Your task to perform on an android device: Show me popular videos on Youtube Image 0: 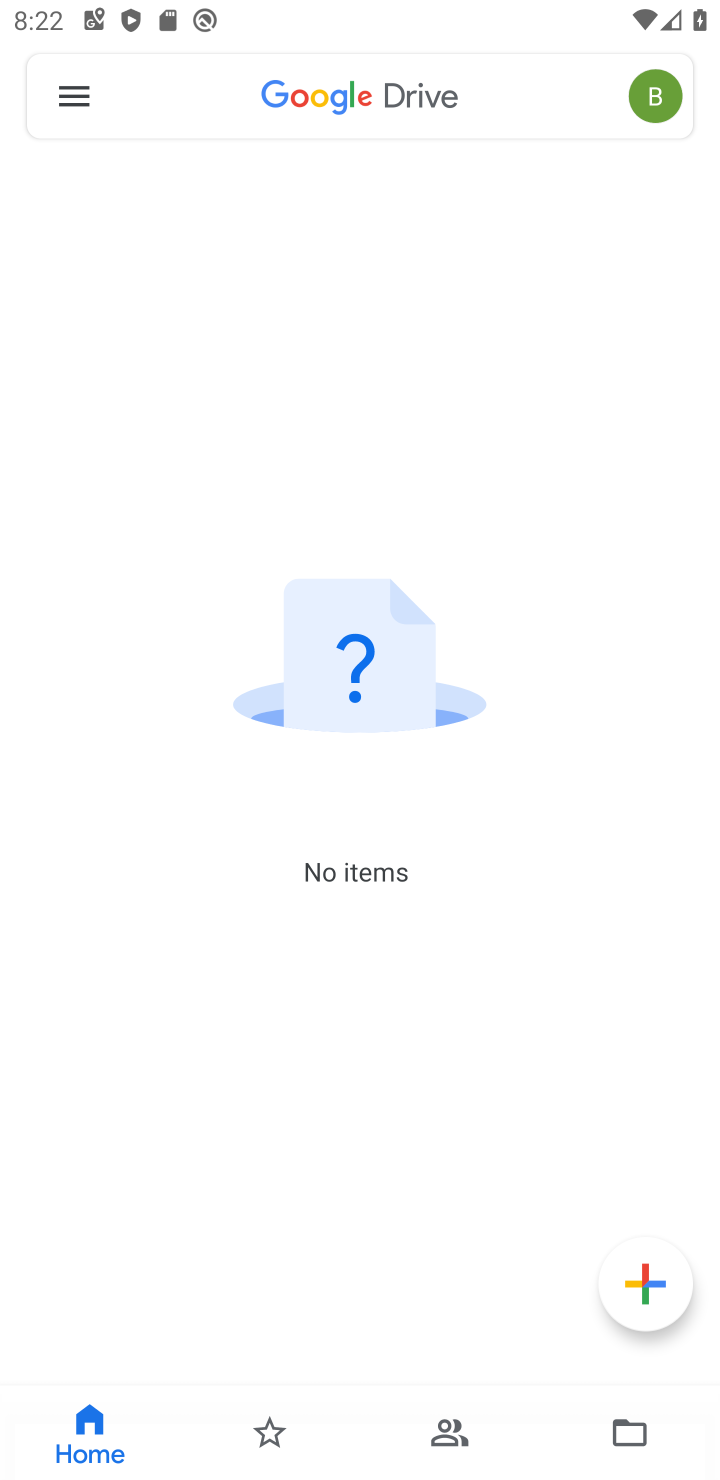
Step 0: press home button
Your task to perform on an android device: Show me popular videos on Youtube Image 1: 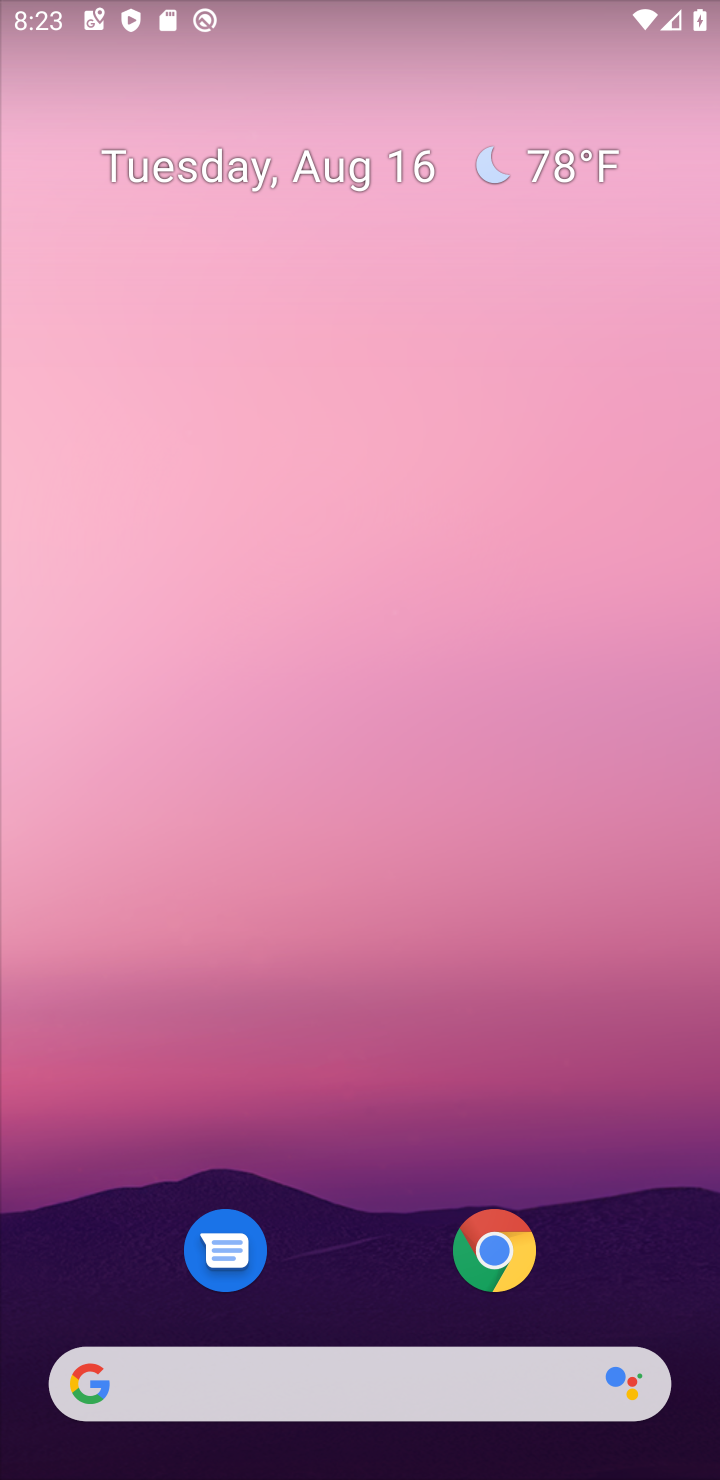
Step 1: drag from (315, 1305) to (523, 128)
Your task to perform on an android device: Show me popular videos on Youtube Image 2: 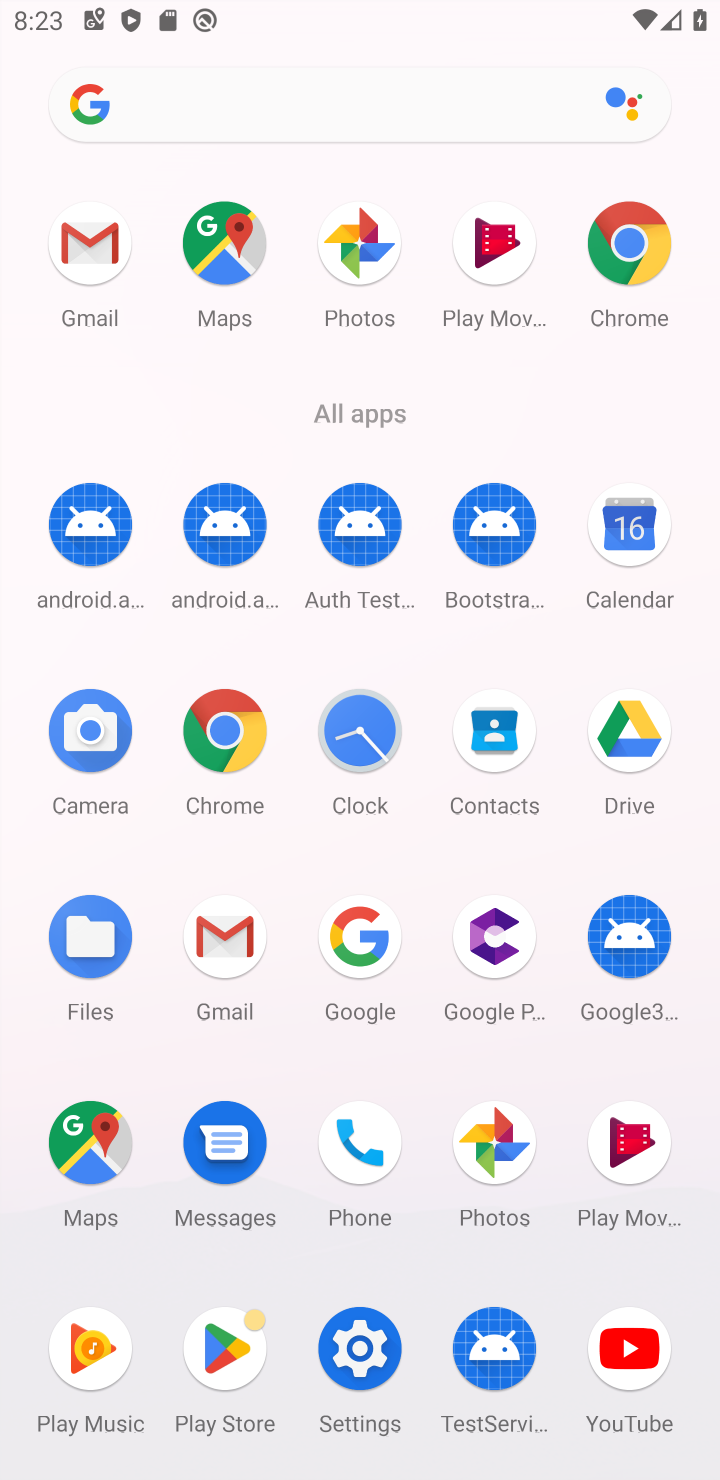
Step 2: click (603, 1361)
Your task to perform on an android device: Show me popular videos on Youtube Image 3: 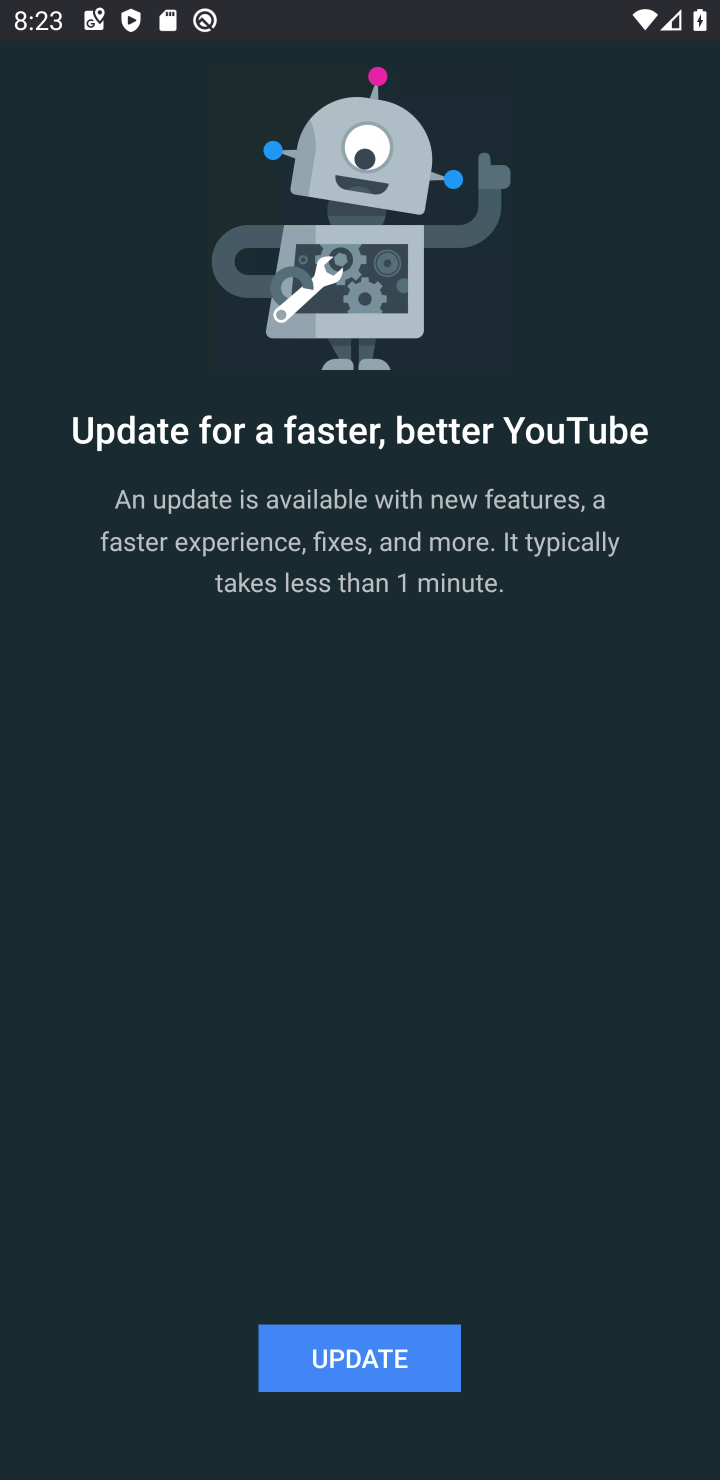
Step 3: click (385, 1370)
Your task to perform on an android device: Show me popular videos on Youtube Image 4: 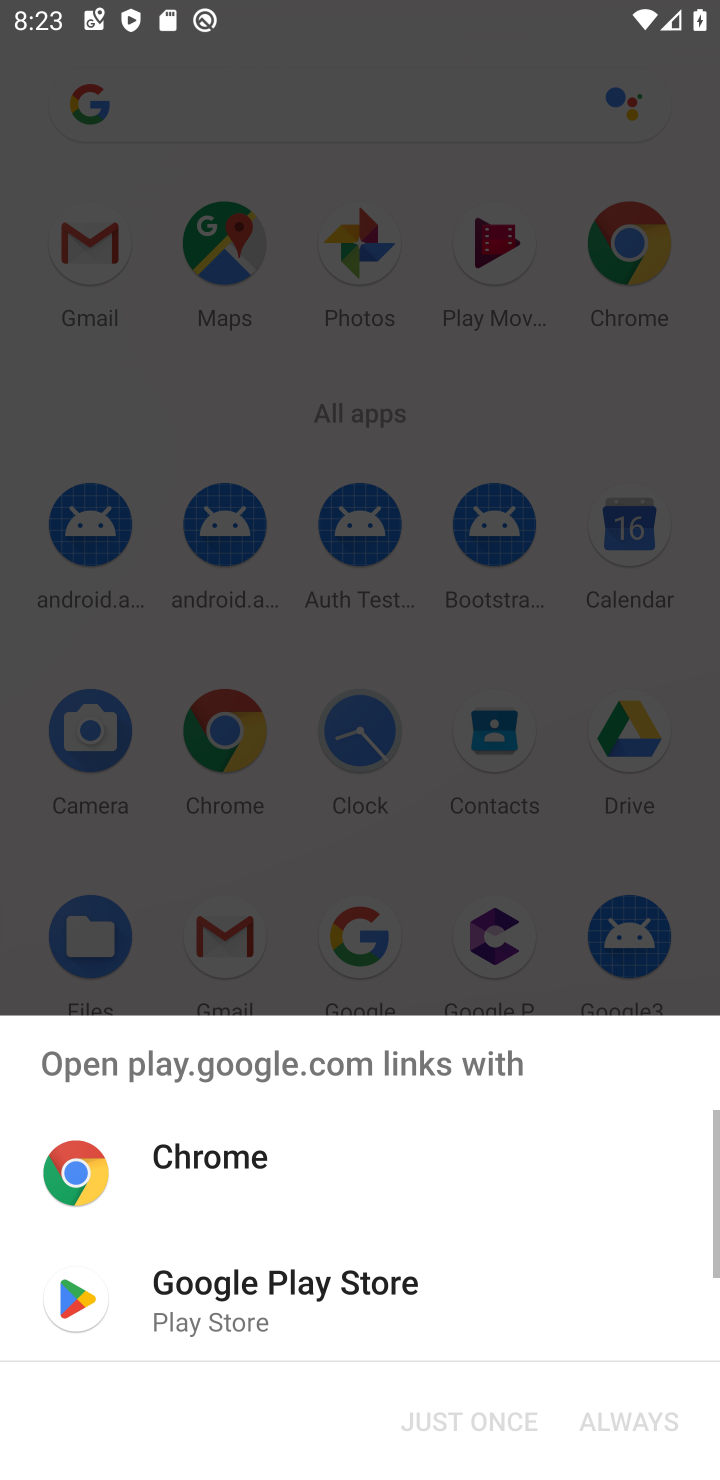
Step 4: click (328, 1314)
Your task to perform on an android device: Show me popular videos on Youtube Image 5: 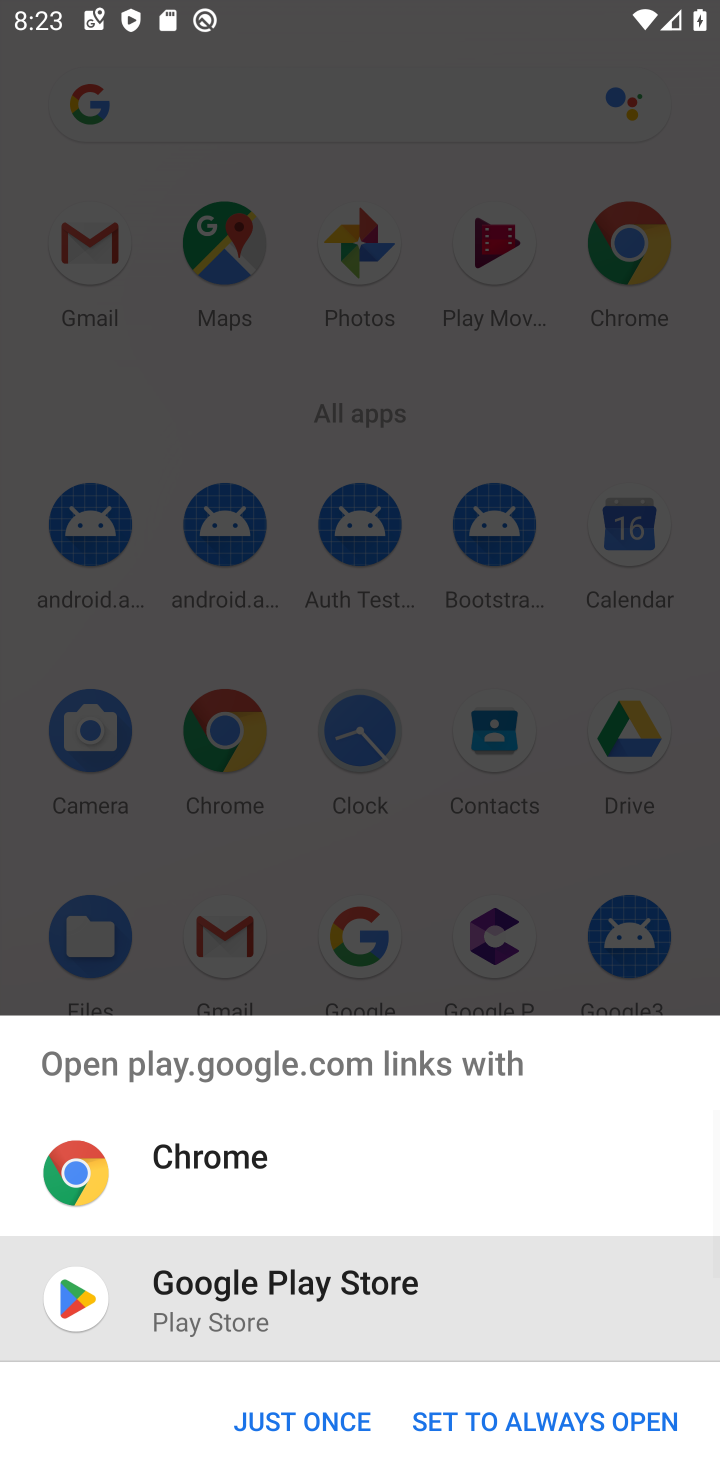
Step 5: click (253, 1419)
Your task to perform on an android device: Show me popular videos on Youtube Image 6: 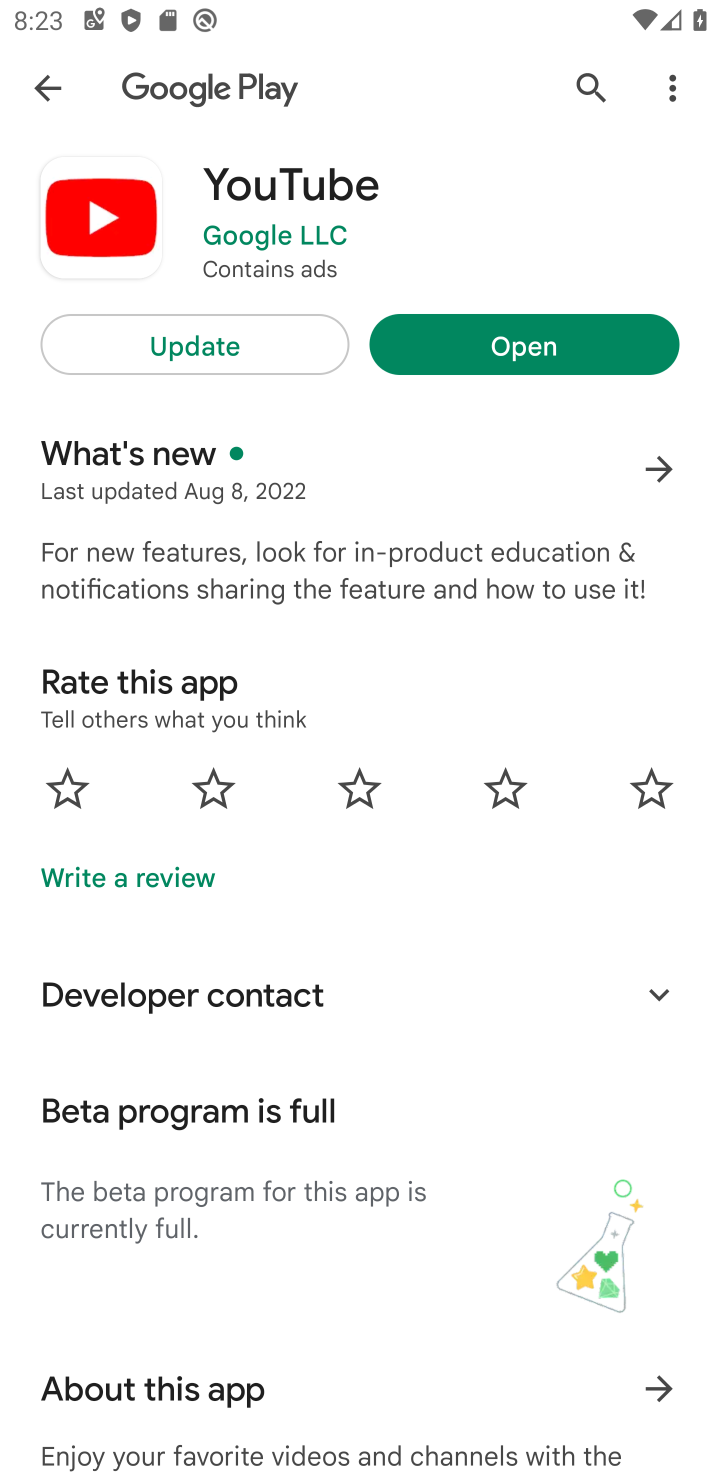
Step 6: click (543, 338)
Your task to perform on an android device: Show me popular videos on Youtube Image 7: 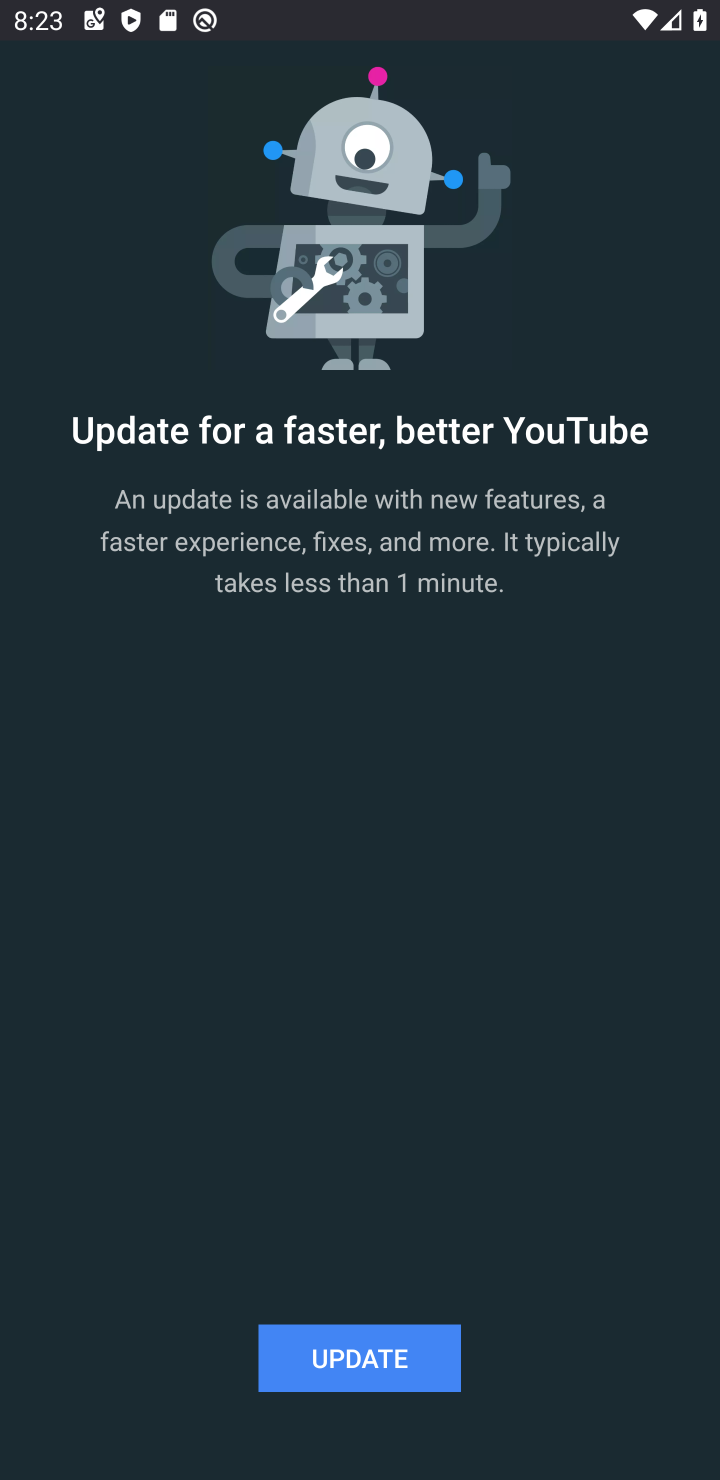
Step 7: click (393, 1362)
Your task to perform on an android device: Show me popular videos on Youtube Image 8: 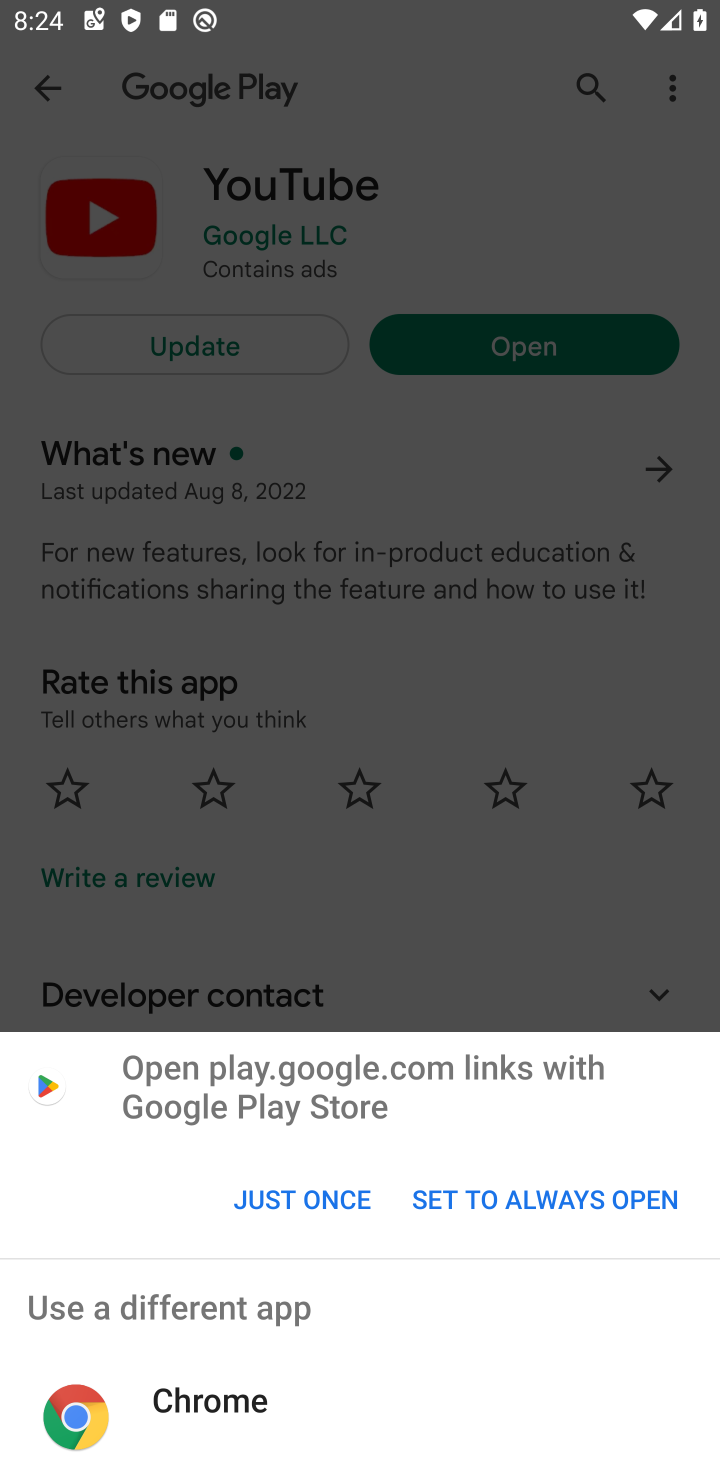
Step 8: click (270, 1203)
Your task to perform on an android device: Show me popular videos on Youtube Image 9: 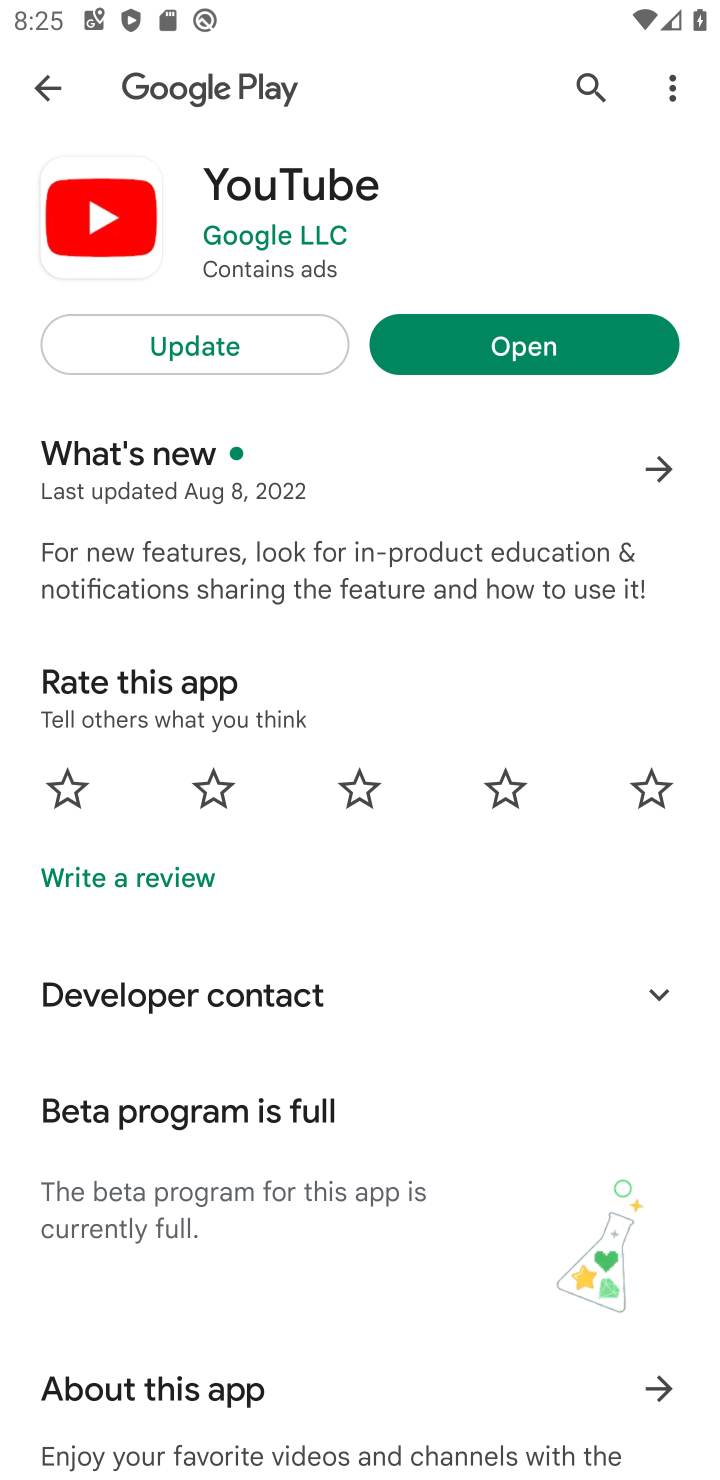
Step 9: click (567, 344)
Your task to perform on an android device: Show me popular videos on Youtube Image 10: 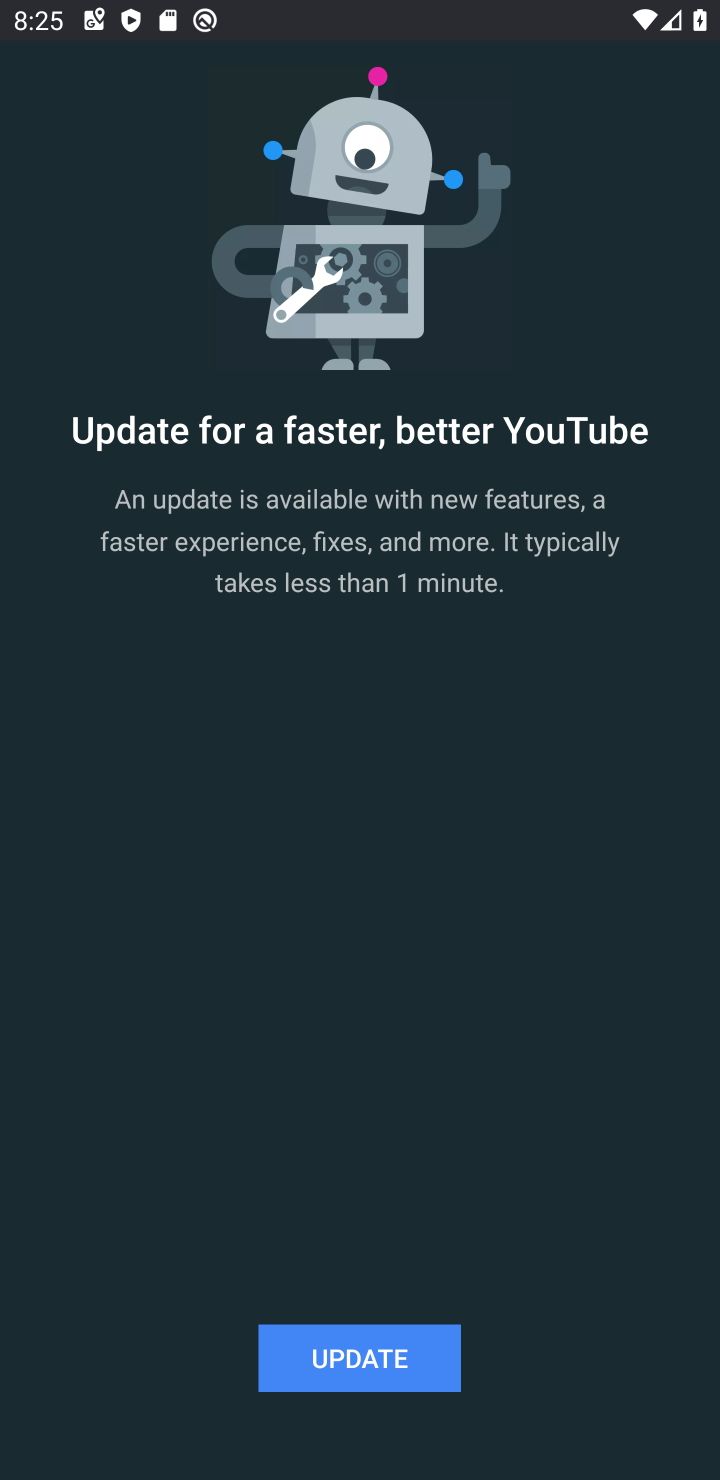
Step 10: click (397, 1340)
Your task to perform on an android device: Show me popular videos on Youtube Image 11: 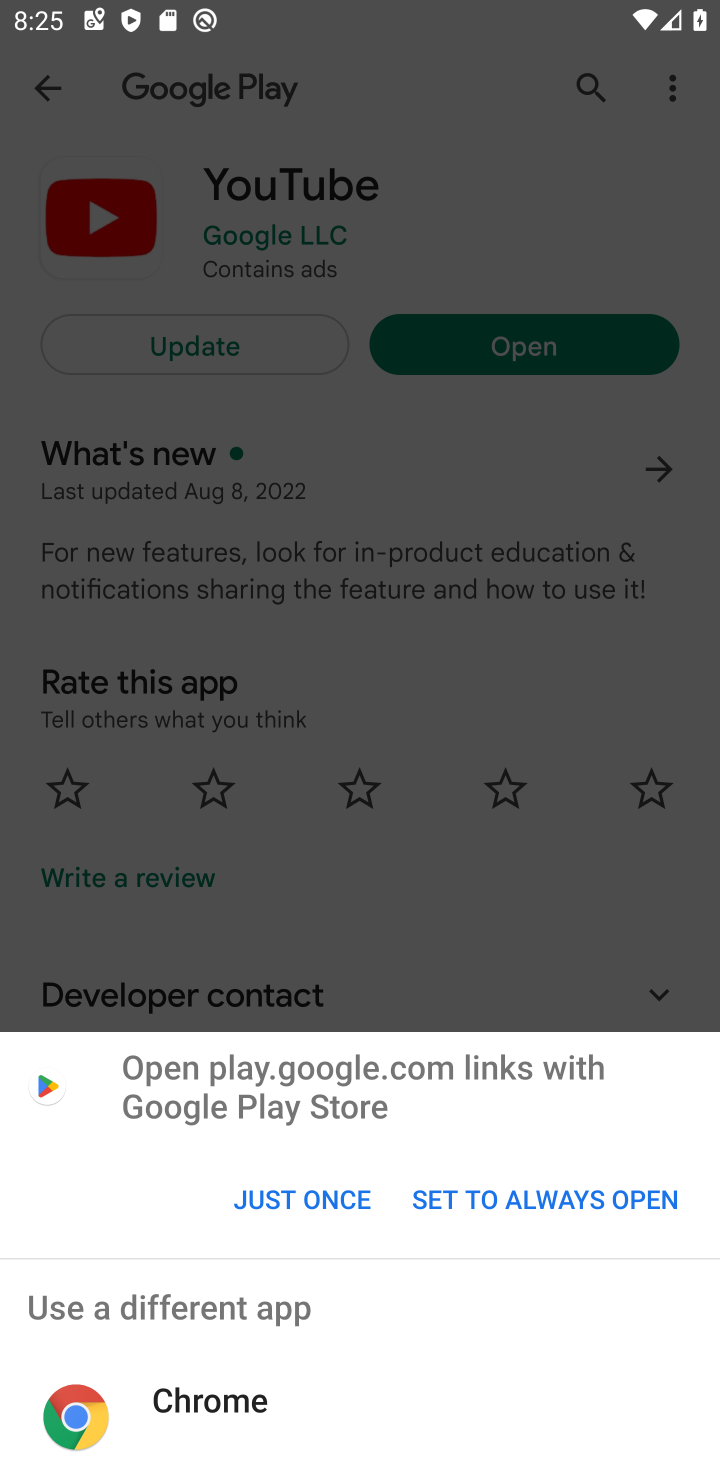
Step 11: click (300, 1212)
Your task to perform on an android device: Show me popular videos on Youtube Image 12: 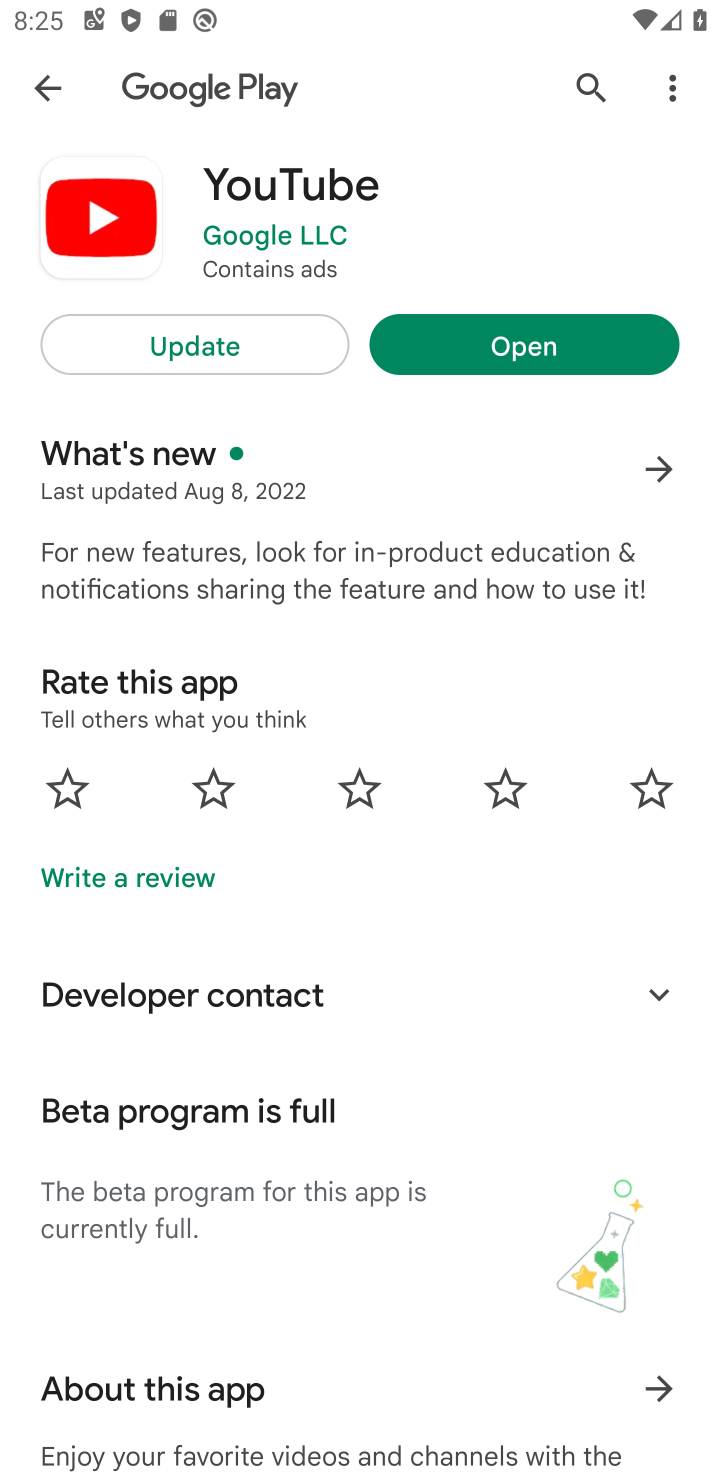
Step 12: click (535, 346)
Your task to perform on an android device: Show me popular videos on Youtube Image 13: 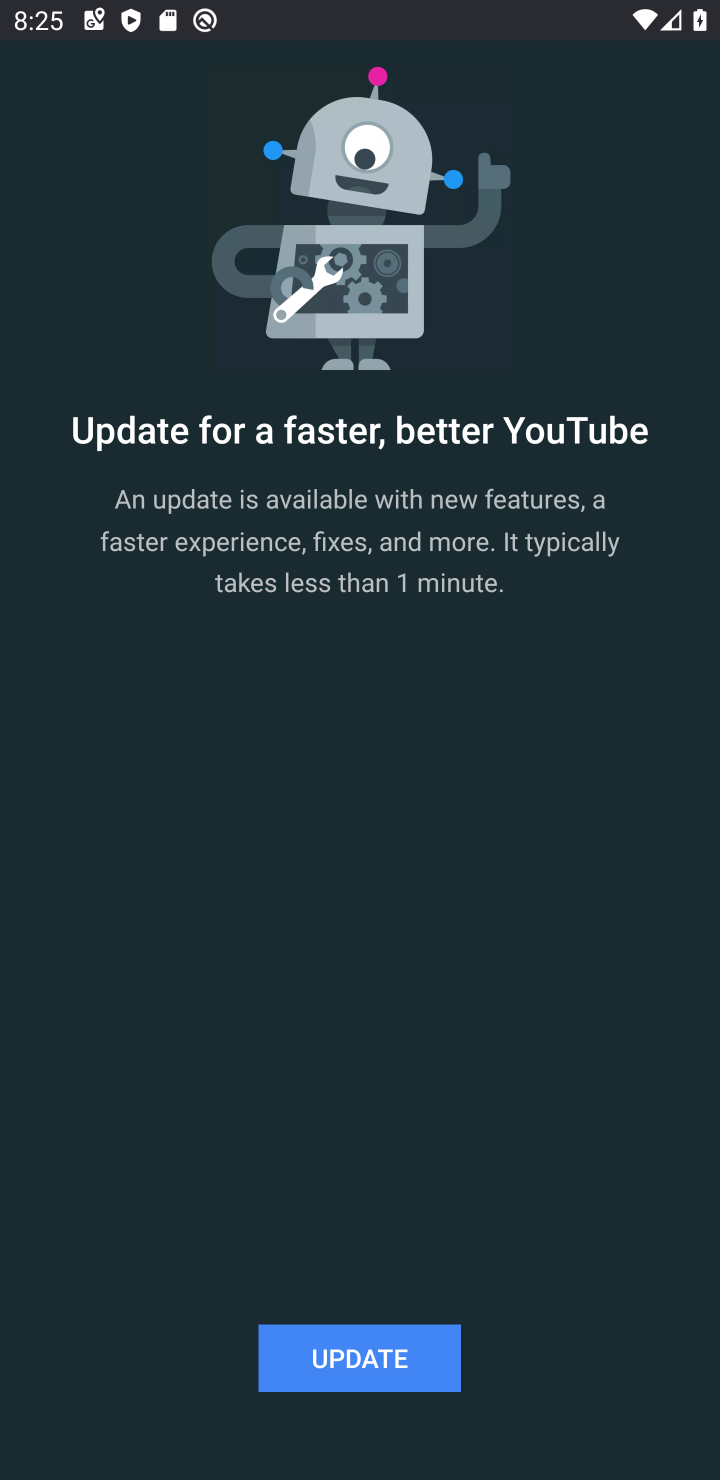
Step 13: click (342, 1365)
Your task to perform on an android device: Show me popular videos on Youtube Image 14: 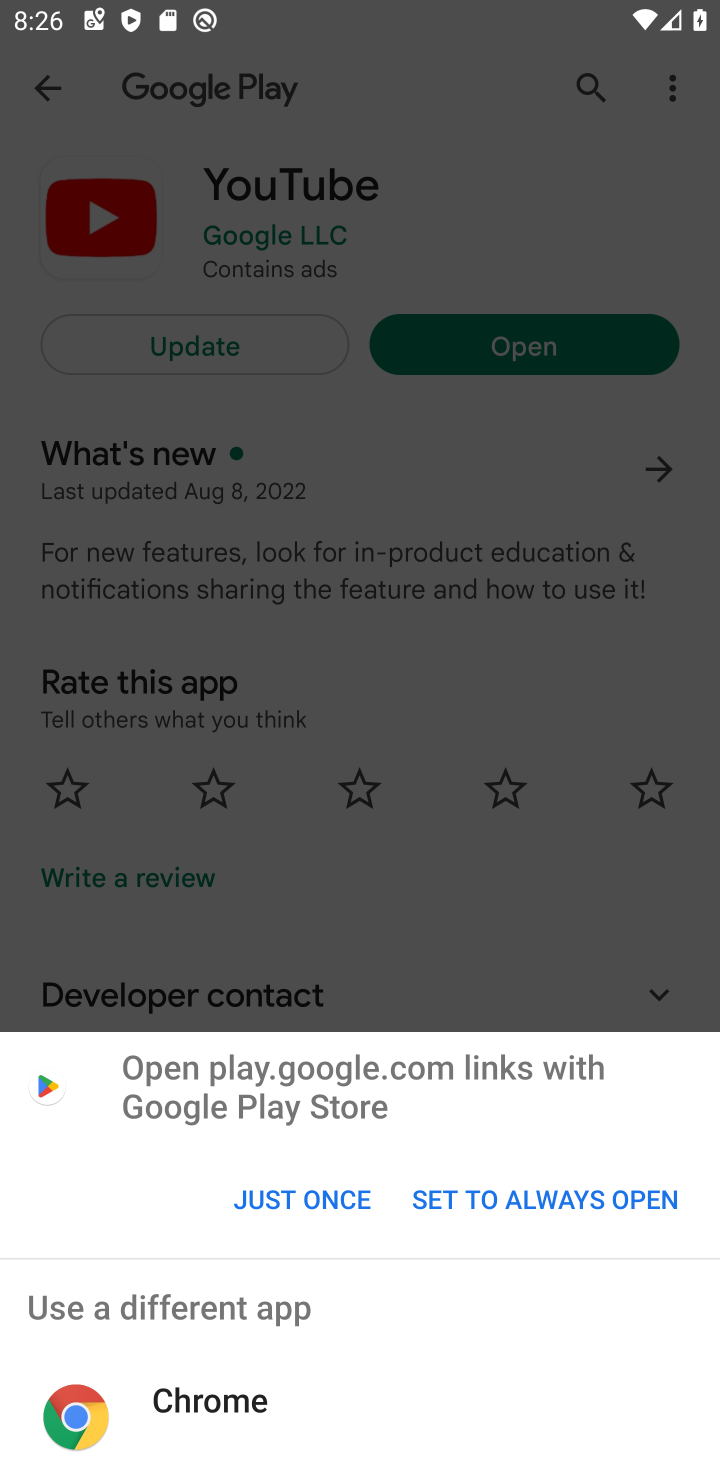
Step 14: click (280, 1191)
Your task to perform on an android device: Show me popular videos on Youtube Image 15: 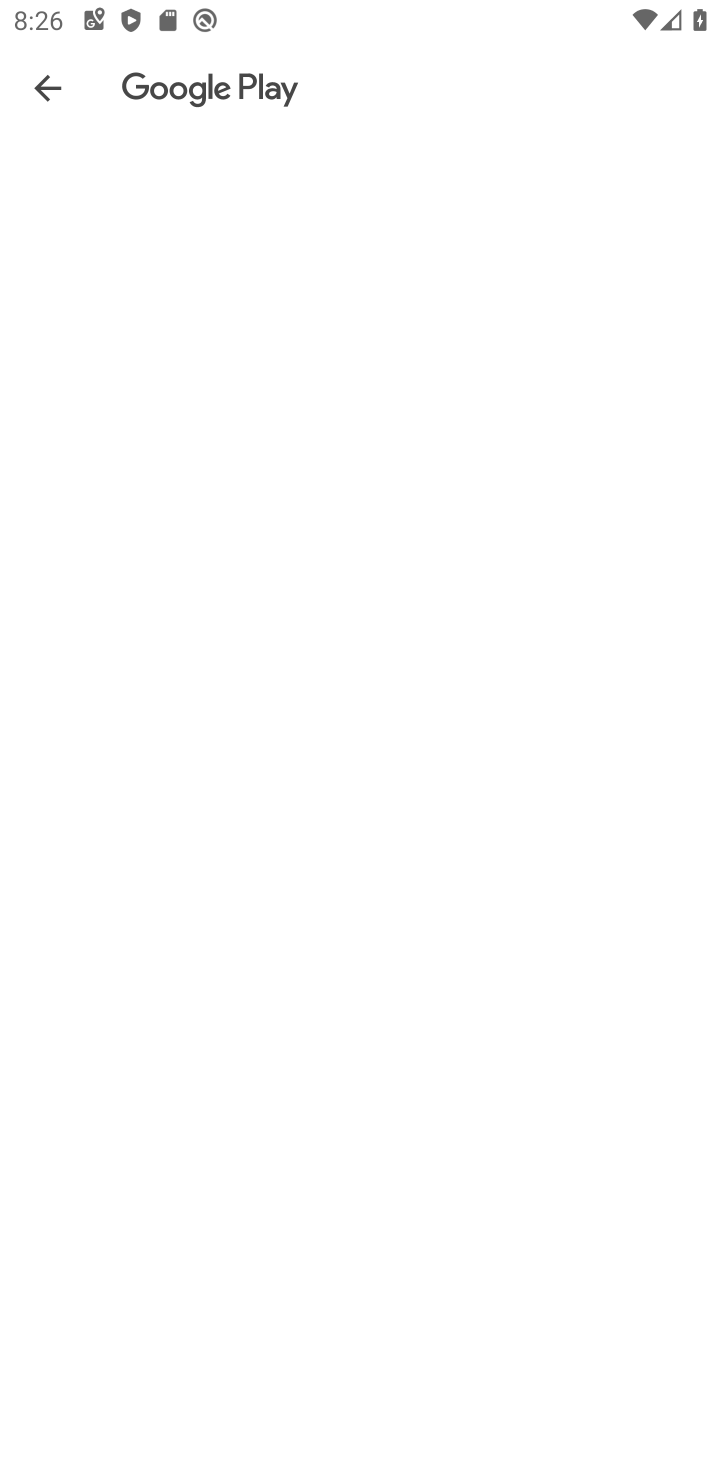
Step 15: click (280, 1191)
Your task to perform on an android device: Show me popular videos on Youtube Image 16: 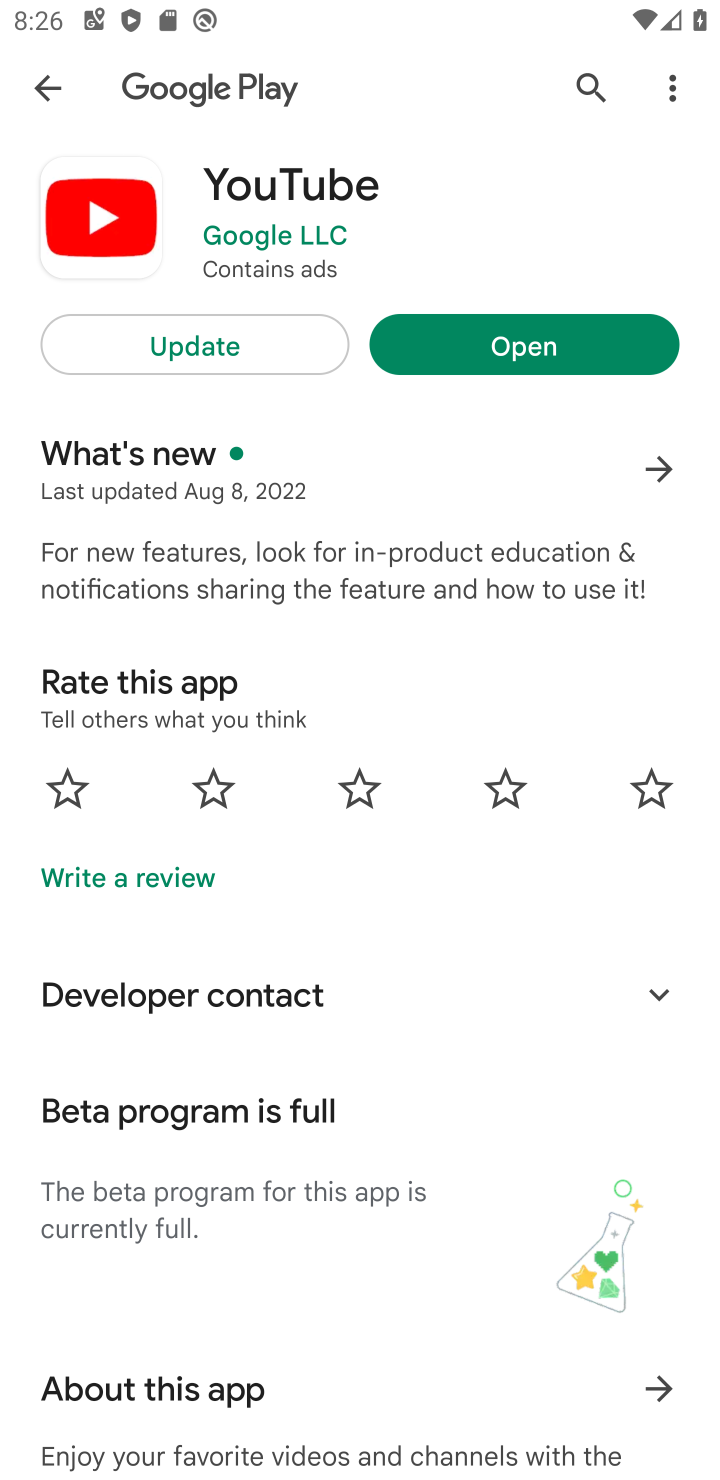
Step 16: click (219, 329)
Your task to perform on an android device: Show me popular videos on Youtube Image 17: 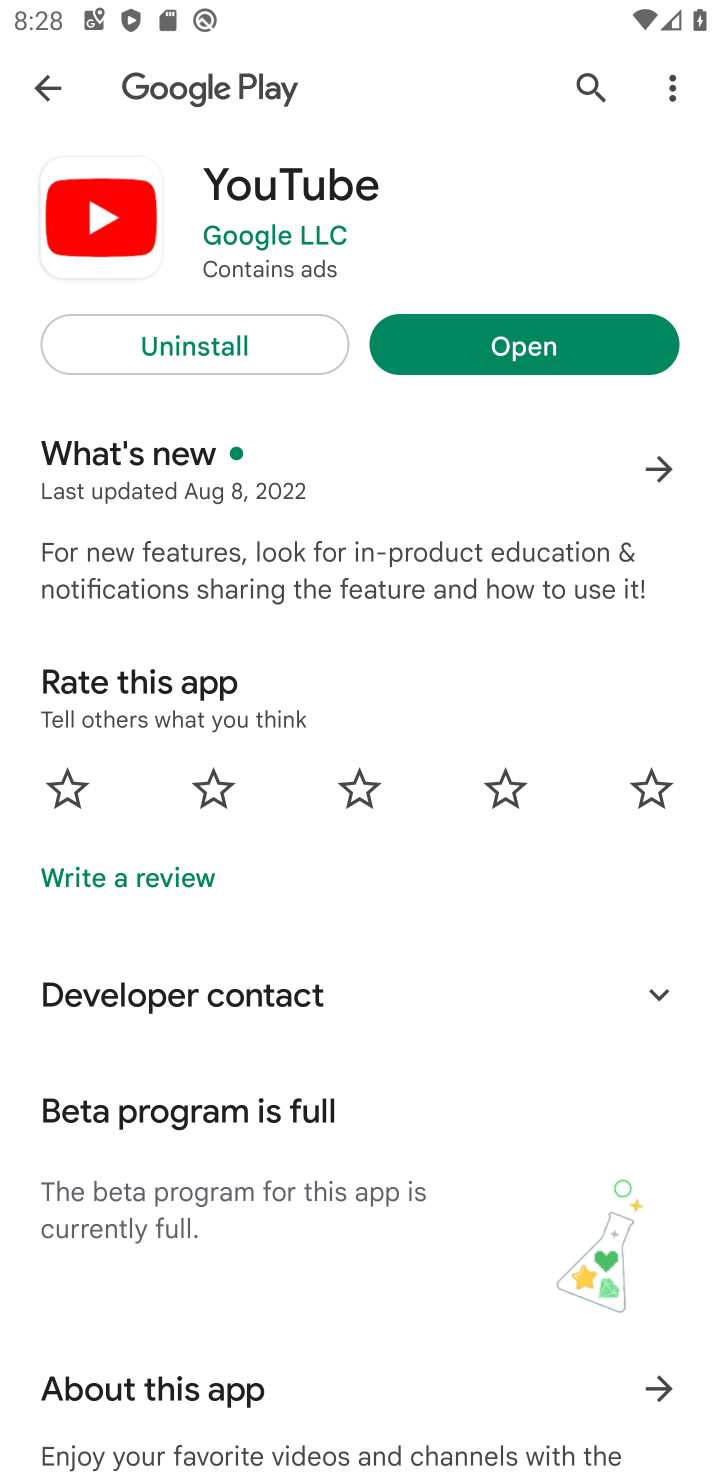
Step 17: click (575, 331)
Your task to perform on an android device: Show me popular videos on Youtube Image 18: 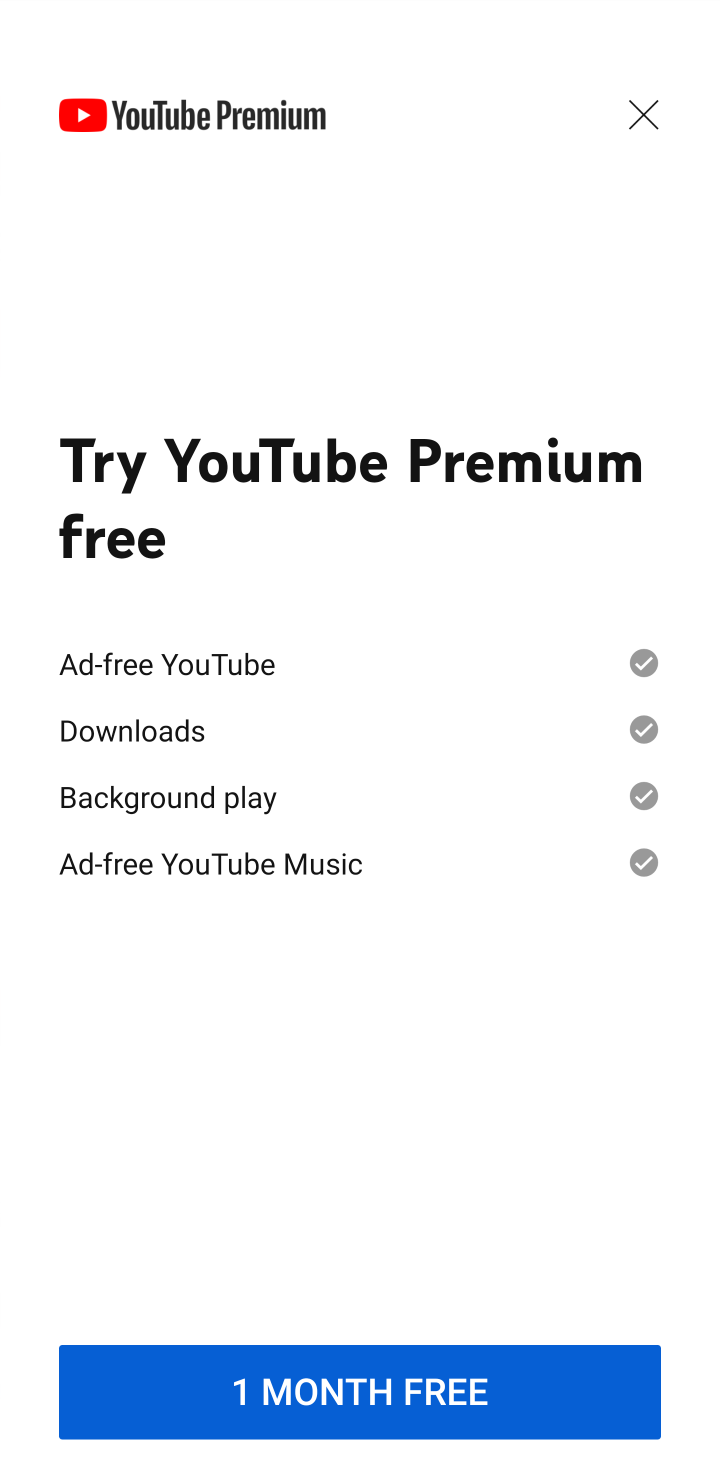
Step 18: click (395, 1424)
Your task to perform on an android device: Show me popular videos on Youtube Image 19: 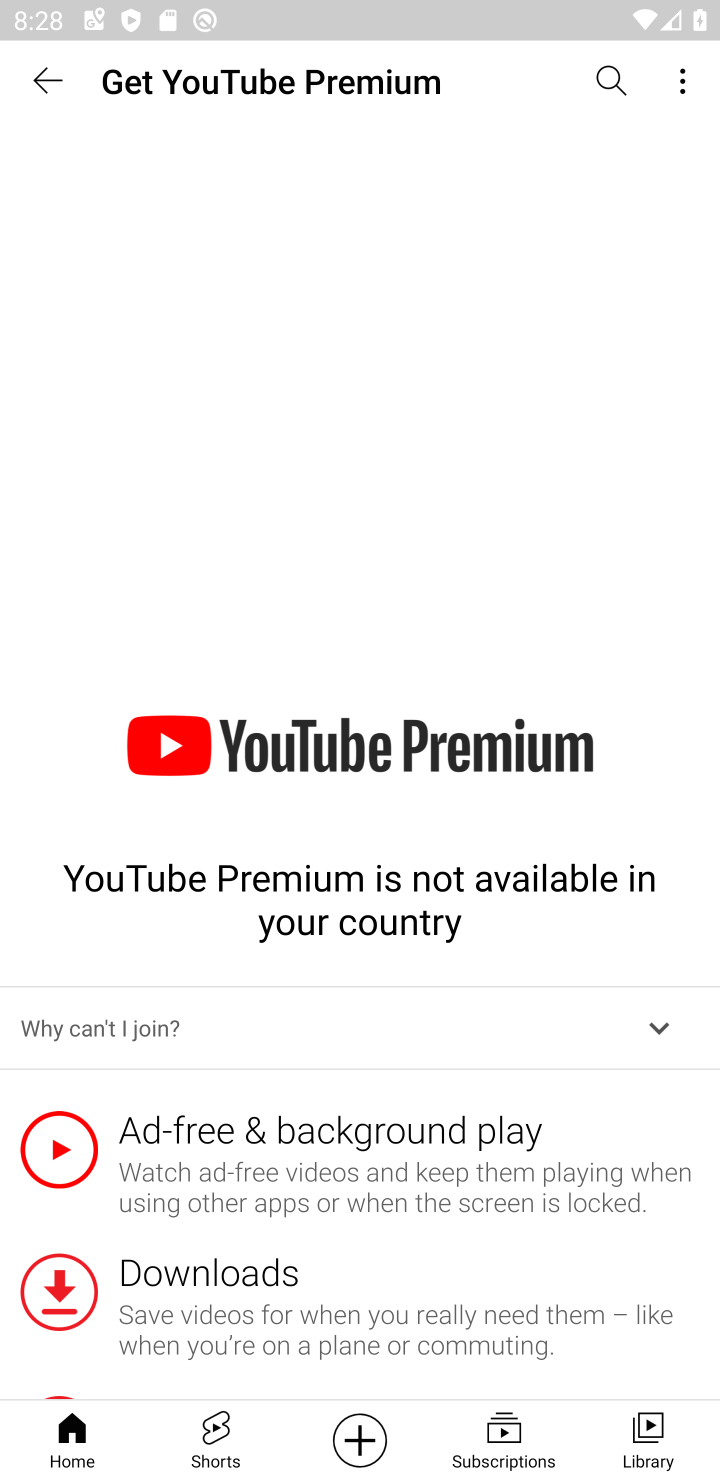
Step 19: click (40, 65)
Your task to perform on an android device: Show me popular videos on Youtube Image 20: 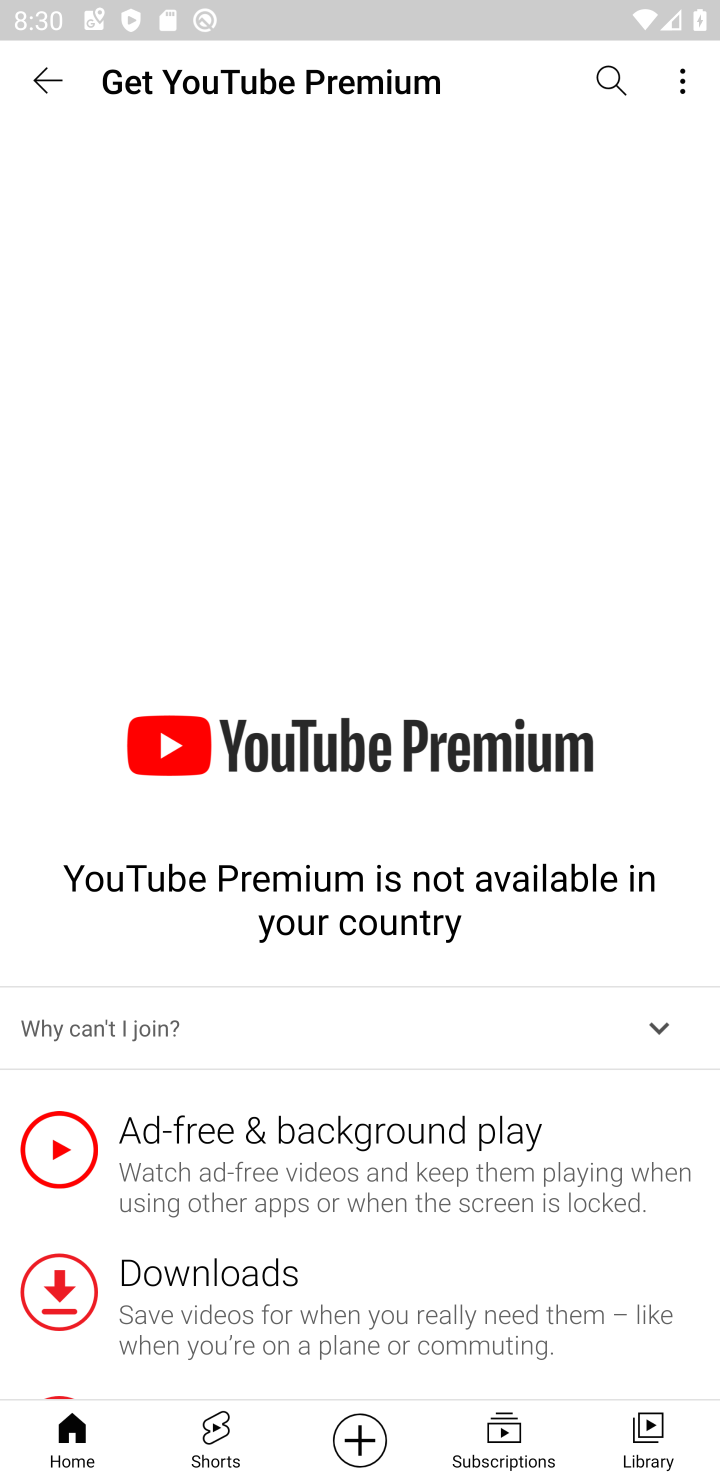
Step 20: click (52, 73)
Your task to perform on an android device: Show me popular videos on Youtube Image 21: 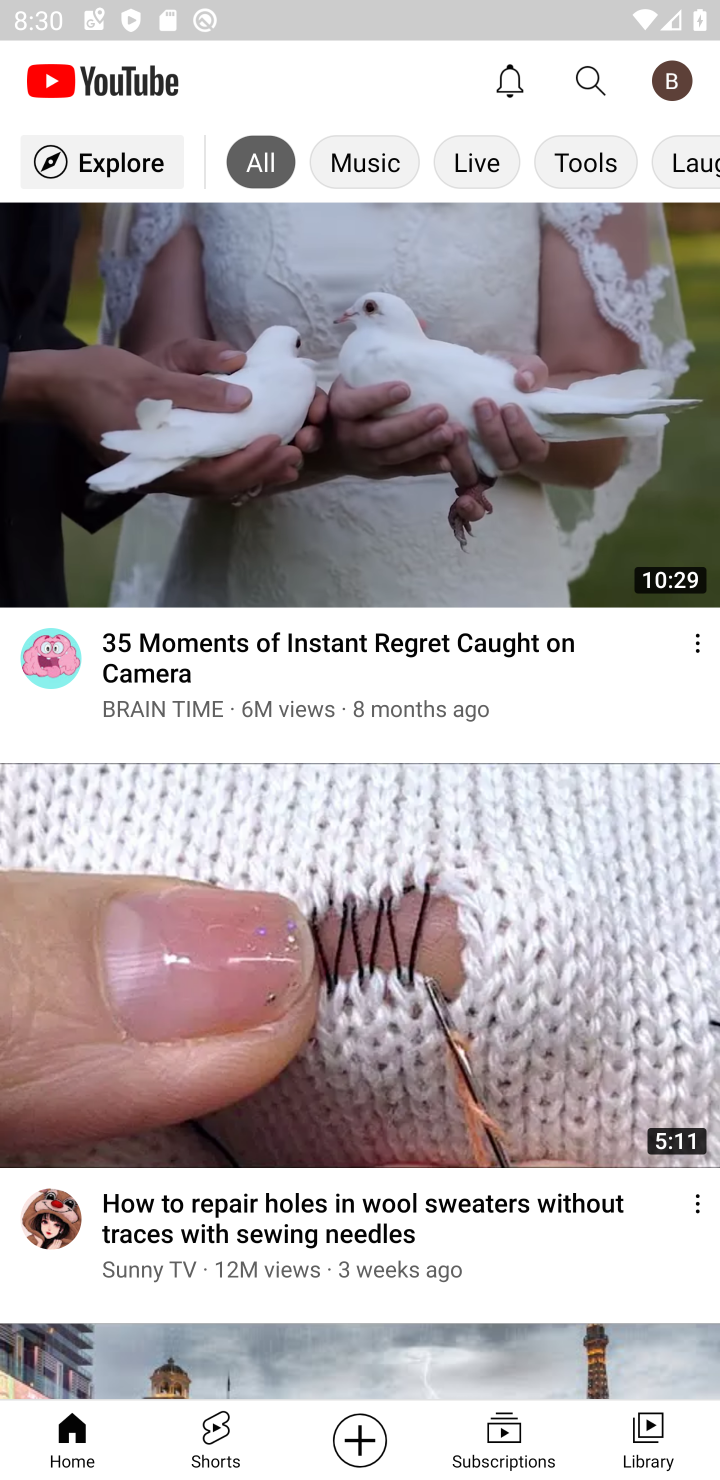
Step 21: click (138, 146)
Your task to perform on an android device: Show me popular videos on Youtube Image 22: 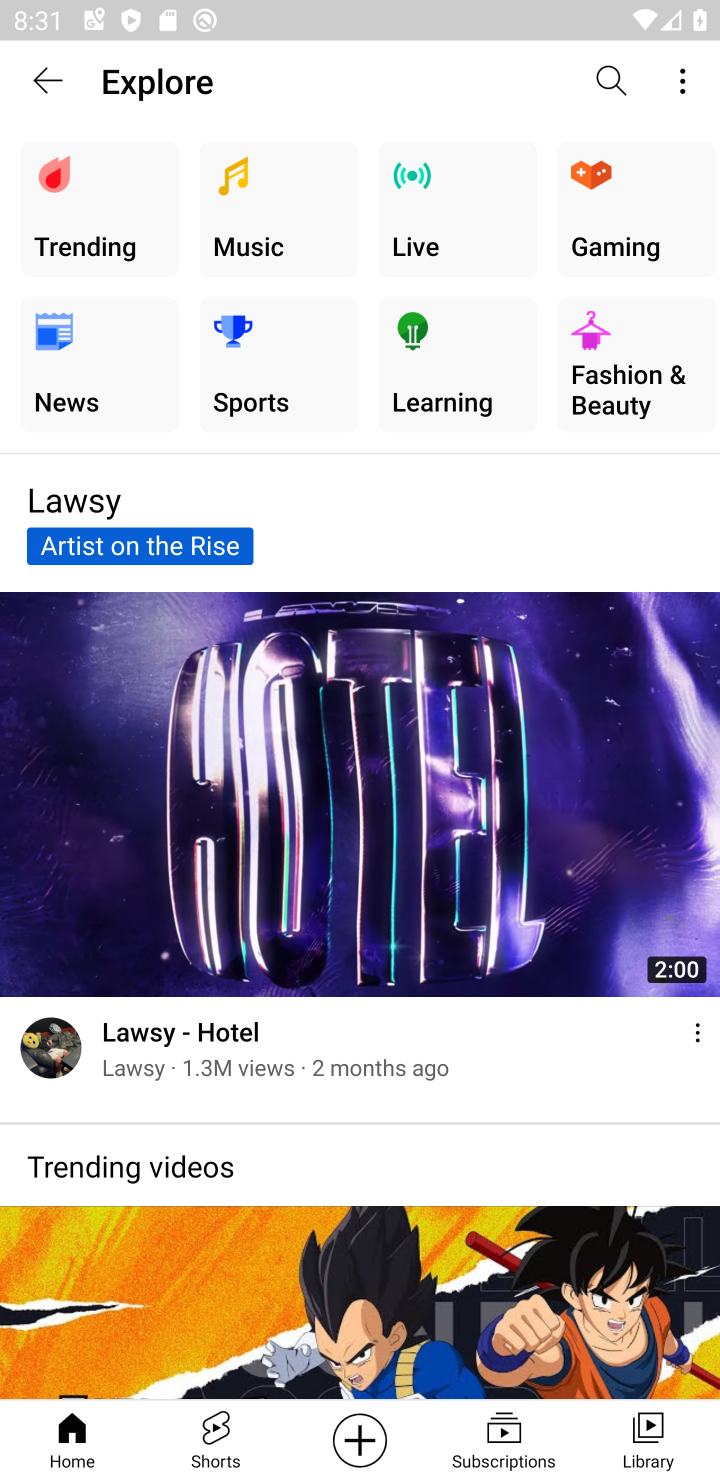
Step 22: click (74, 160)
Your task to perform on an android device: Show me popular videos on Youtube Image 23: 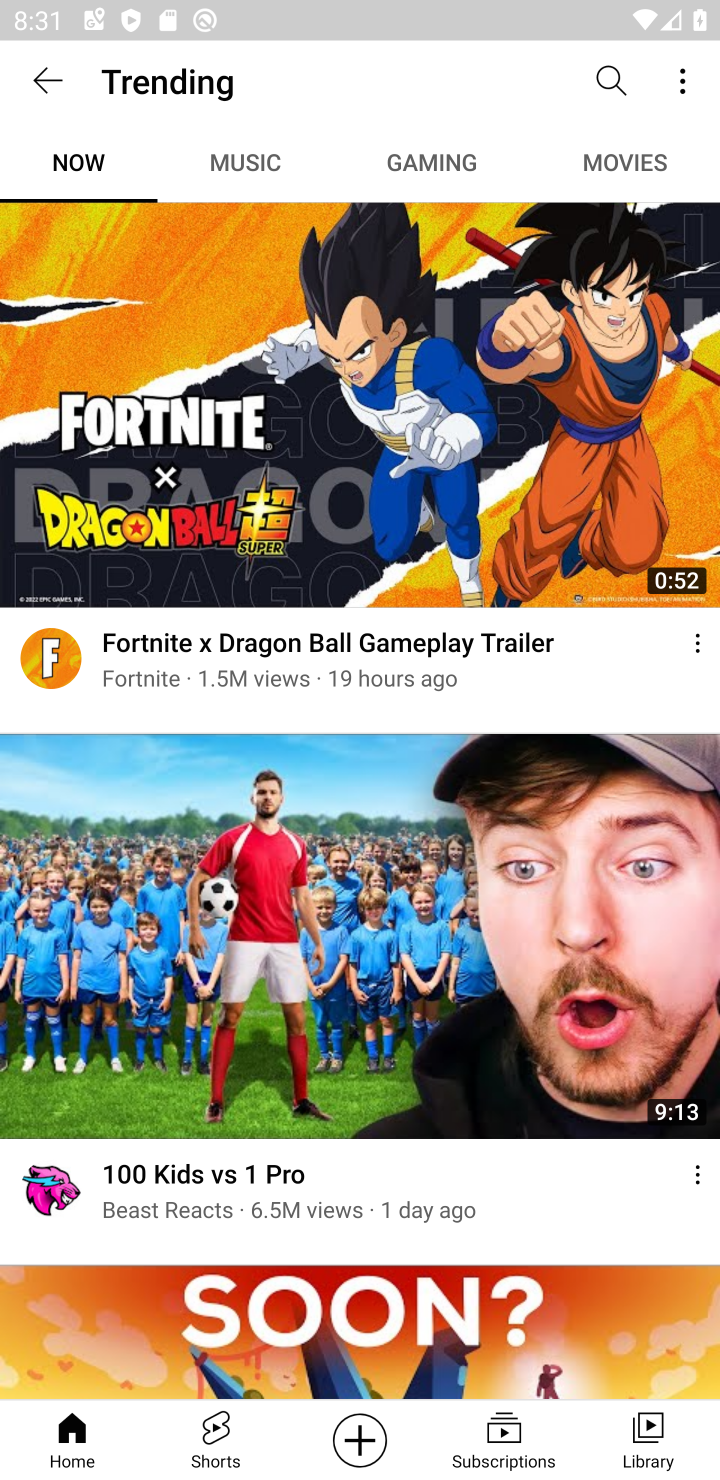
Step 23: task complete